Your task to perform on an android device: check the backup settings in the google photos Image 0: 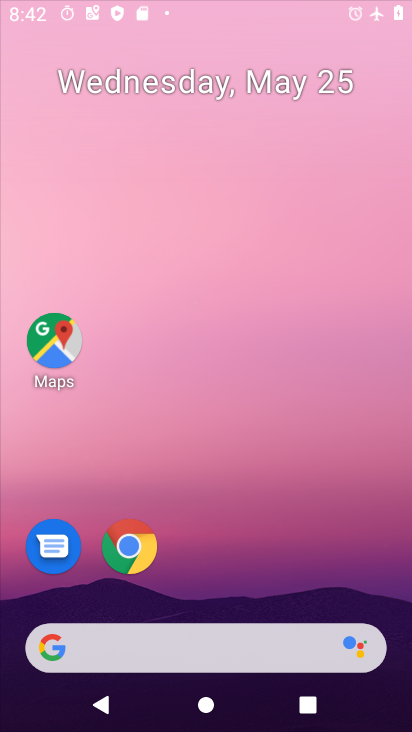
Step 0: drag from (202, 536) to (210, 139)
Your task to perform on an android device: check the backup settings in the google photos Image 1: 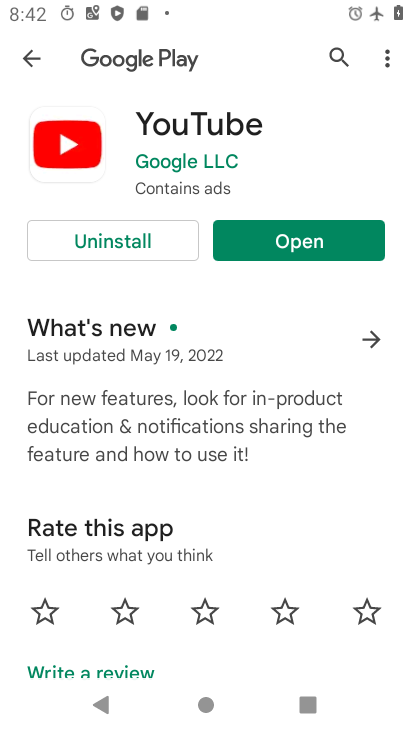
Step 1: press home button
Your task to perform on an android device: check the backup settings in the google photos Image 2: 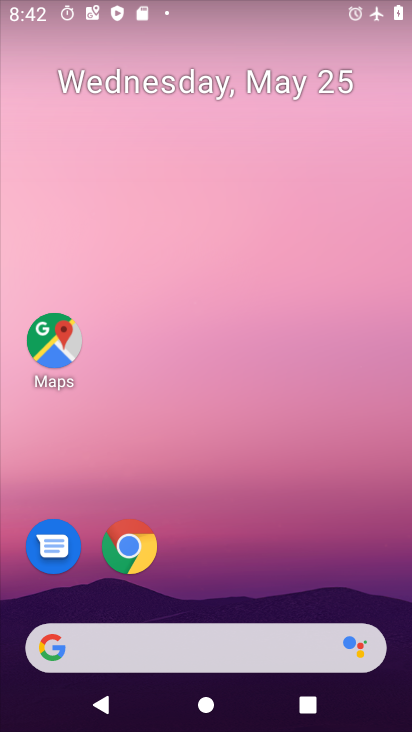
Step 2: drag from (207, 573) to (186, 193)
Your task to perform on an android device: check the backup settings in the google photos Image 3: 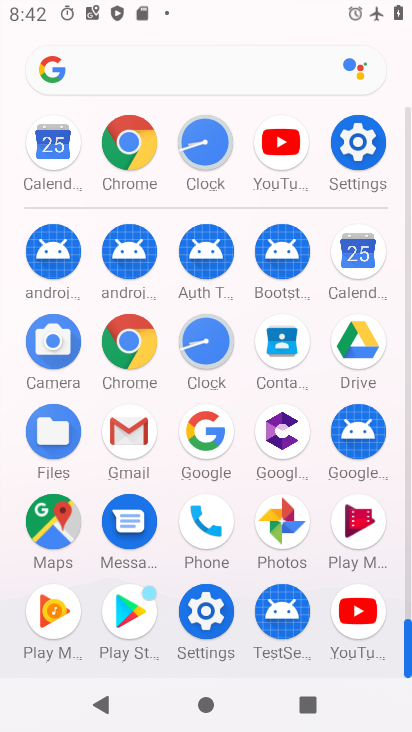
Step 3: click (278, 531)
Your task to perform on an android device: check the backup settings in the google photos Image 4: 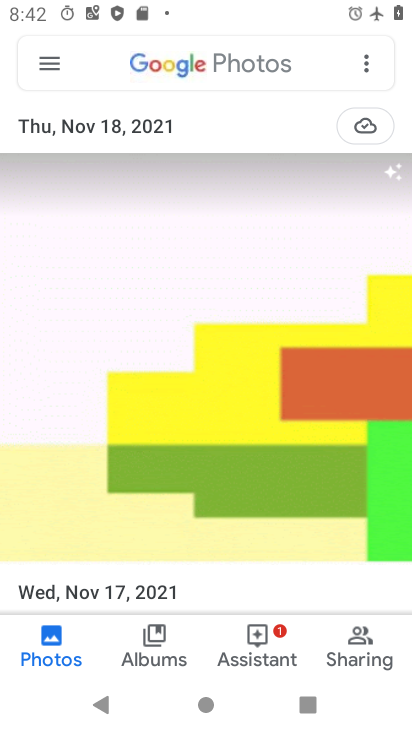
Step 4: click (52, 72)
Your task to perform on an android device: check the backup settings in the google photos Image 5: 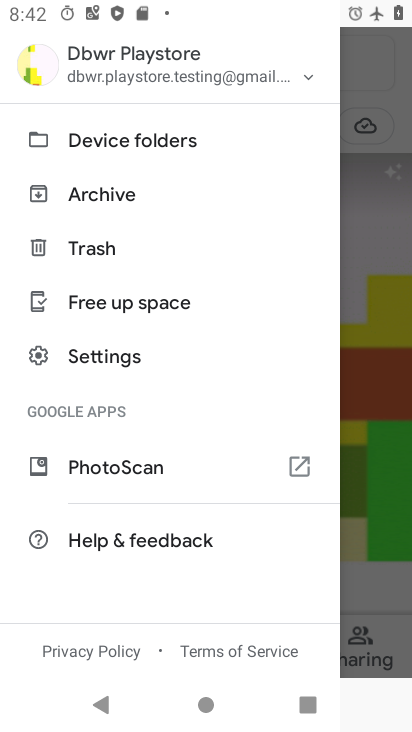
Step 5: click (124, 353)
Your task to perform on an android device: check the backup settings in the google photos Image 6: 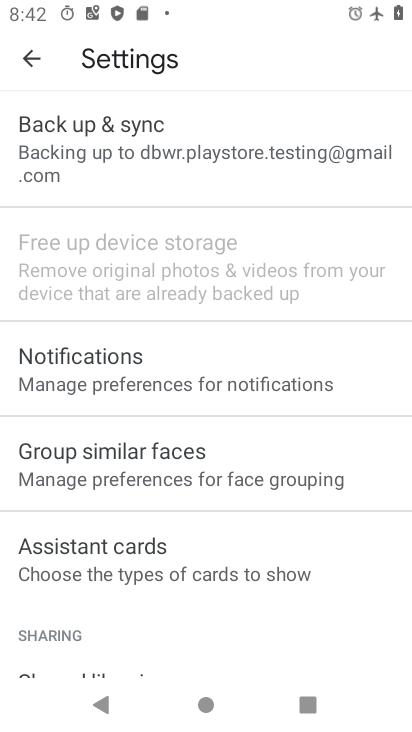
Step 6: click (115, 149)
Your task to perform on an android device: check the backup settings in the google photos Image 7: 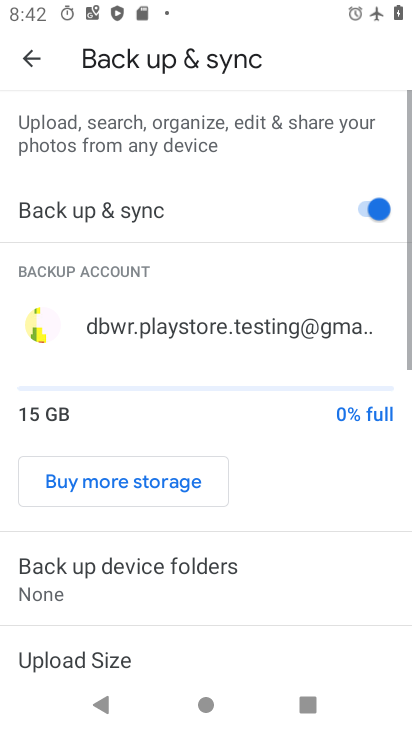
Step 7: task complete